Your task to perform on an android device: create a new album in the google photos Image 0: 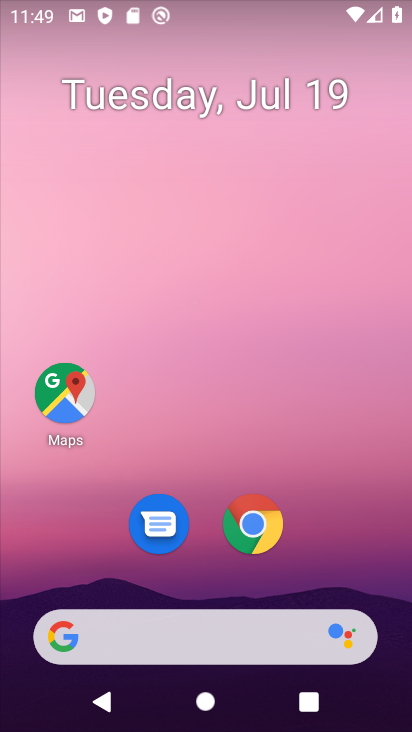
Step 0: press home button
Your task to perform on an android device: create a new album in the google photos Image 1: 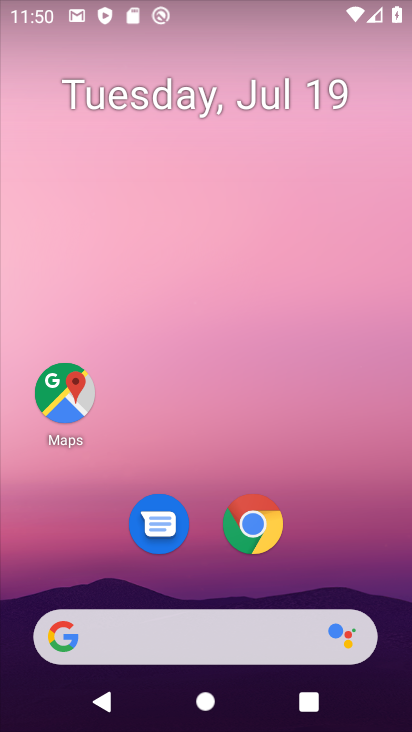
Step 1: drag from (151, 650) to (290, 163)
Your task to perform on an android device: create a new album in the google photos Image 2: 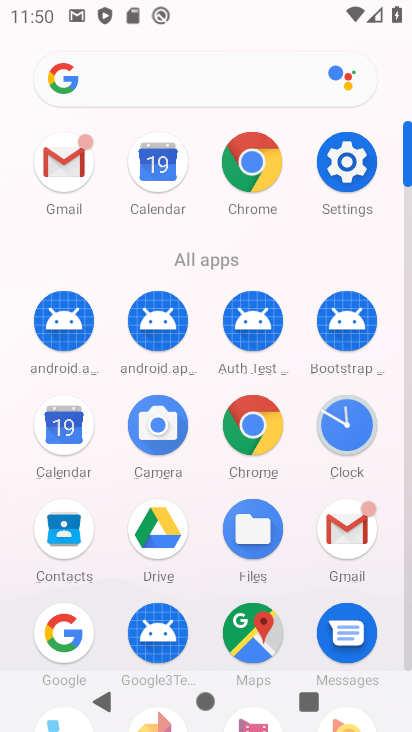
Step 2: drag from (208, 590) to (330, 182)
Your task to perform on an android device: create a new album in the google photos Image 3: 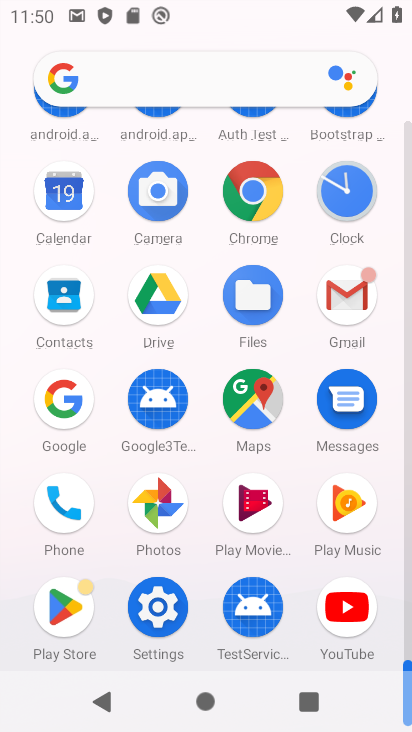
Step 3: click (162, 515)
Your task to perform on an android device: create a new album in the google photos Image 4: 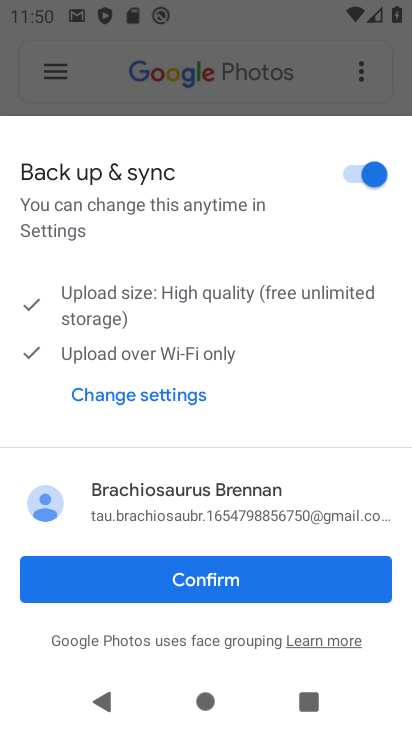
Step 4: click (202, 582)
Your task to perform on an android device: create a new album in the google photos Image 5: 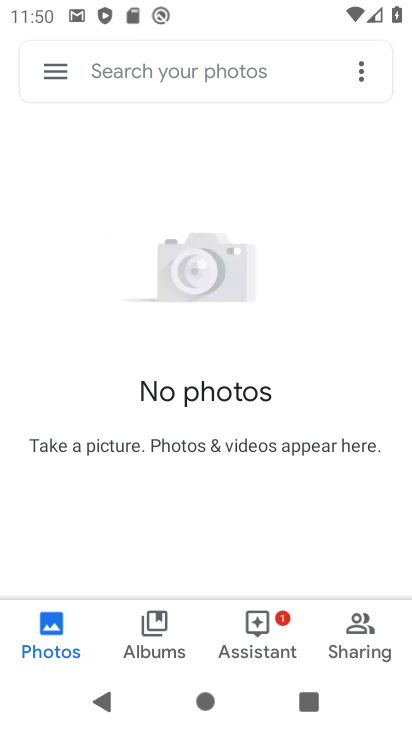
Step 5: click (165, 647)
Your task to perform on an android device: create a new album in the google photos Image 6: 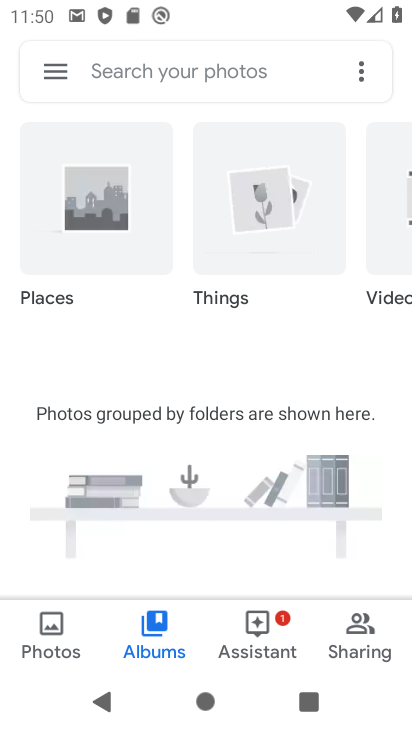
Step 6: task complete